Your task to perform on an android device: visit the assistant section in the google photos Image 0: 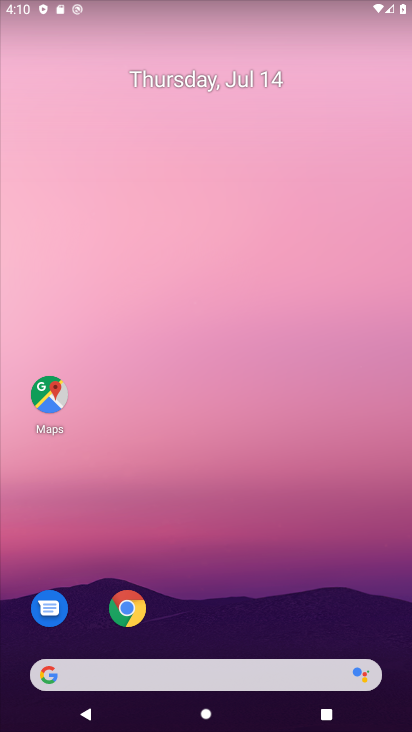
Step 0: drag from (221, 614) to (179, 98)
Your task to perform on an android device: visit the assistant section in the google photos Image 1: 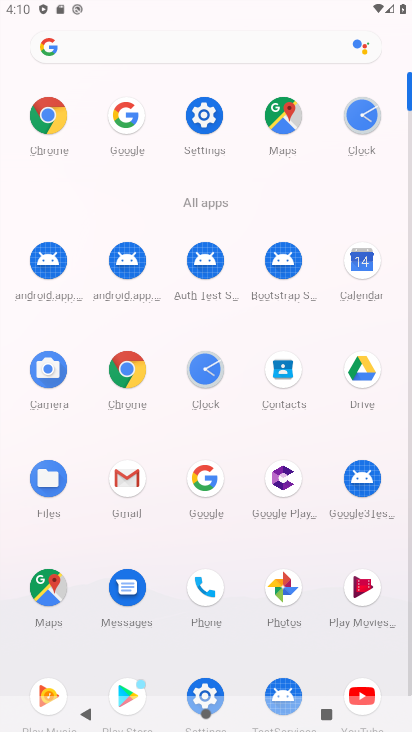
Step 1: click (281, 598)
Your task to perform on an android device: visit the assistant section in the google photos Image 2: 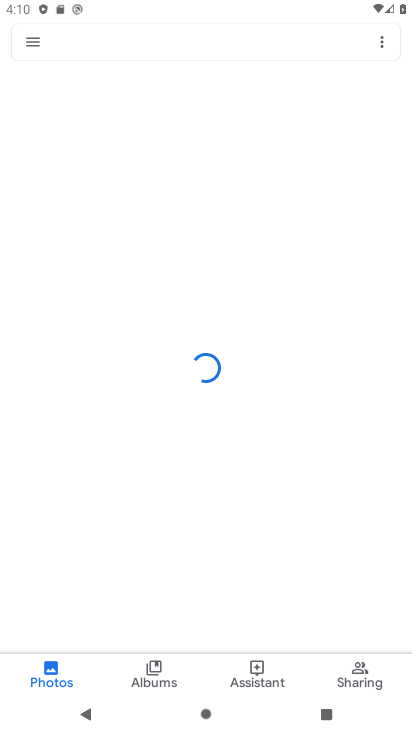
Step 2: click (255, 674)
Your task to perform on an android device: visit the assistant section in the google photos Image 3: 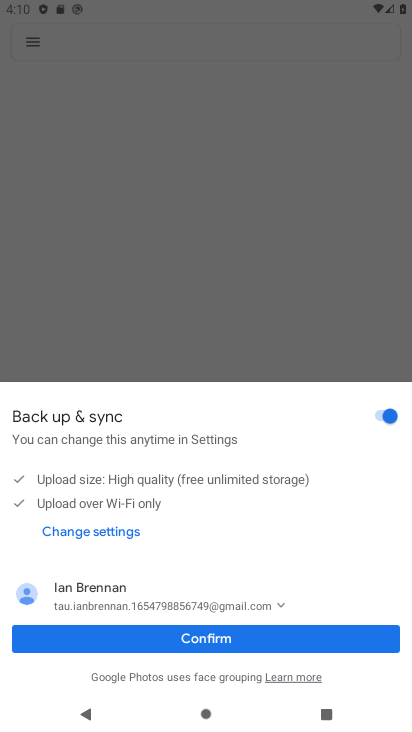
Step 3: click (218, 641)
Your task to perform on an android device: visit the assistant section in the google photos Image 4: 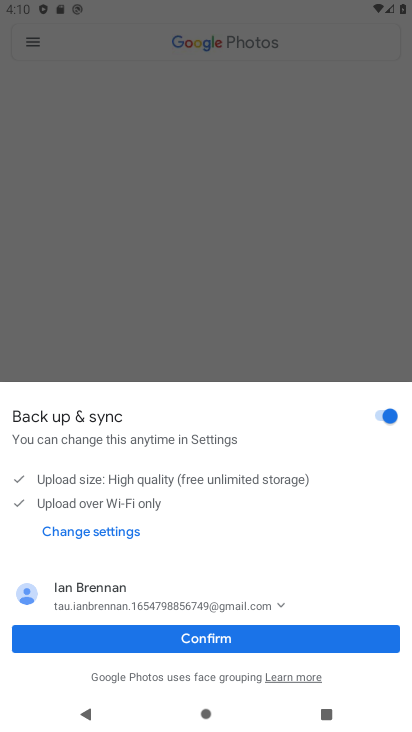
Step 4: click (218, 641)
Your task to perform on an android device: visit the assistant section in the google photos Image 5: 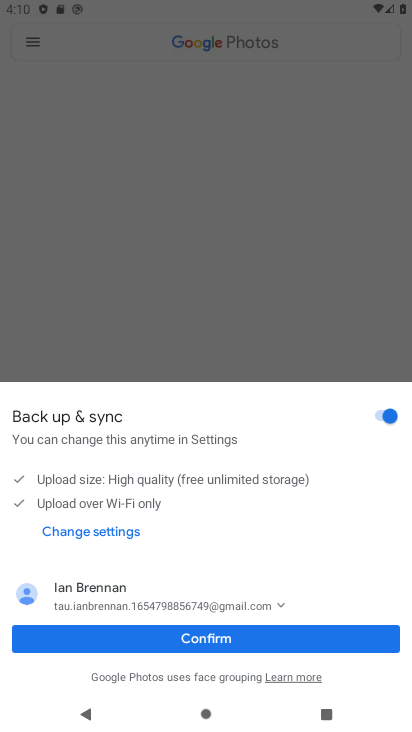
Step 5: click (219, 642)
Your task to perform on an android device: visit the assistant section in the google photos Image 6: 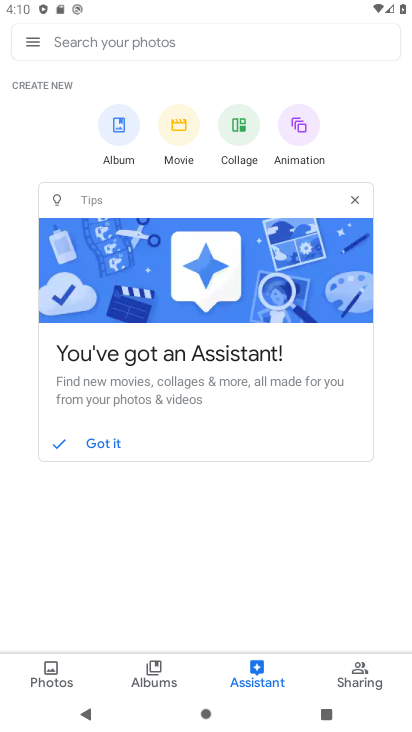
Step 6: task complete